Your task to perform on an android device: change the clock style Image 0: 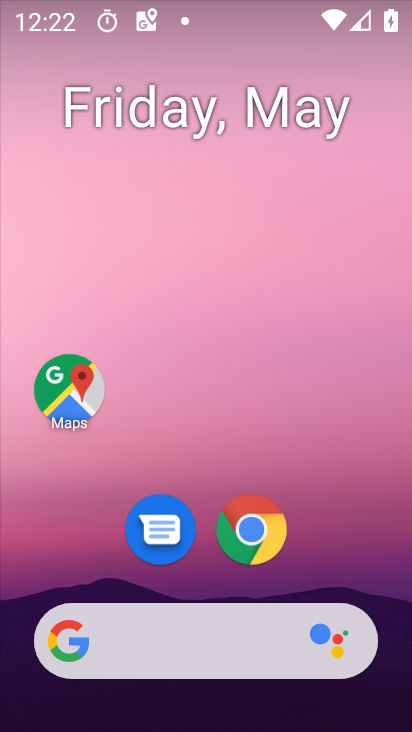
Step 0: drag from (260, 387) to (296, 127)
Your task to perform on an android device: change the clock style Image 1: 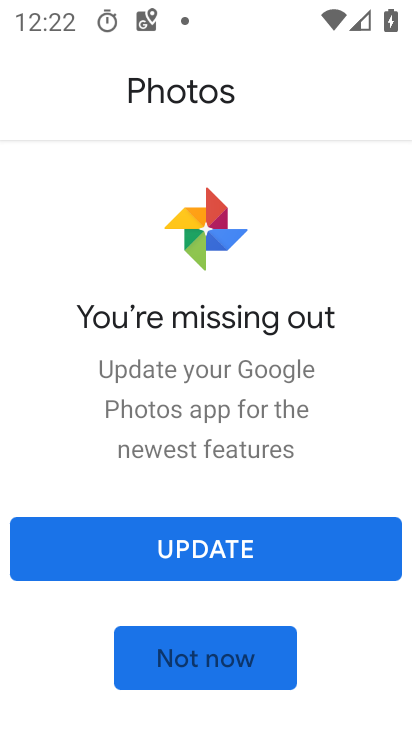
Step 1: press home button
Your task to perform on an android device: change the clock style Image 2: 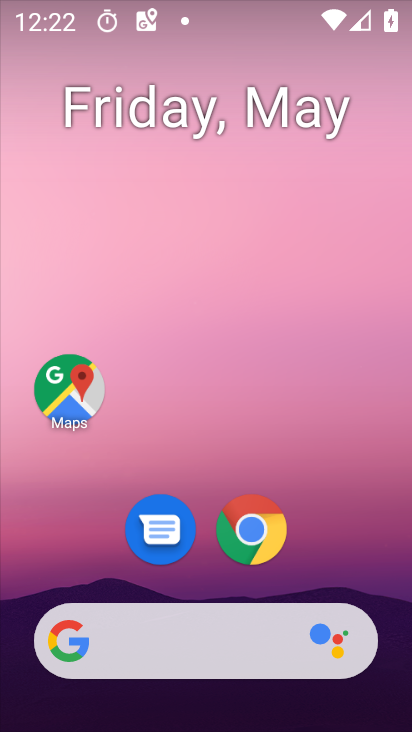
Step 2: drag from (220, 638) to (325, 128)
Your task to perform on an android device: change the clock style Image 3: 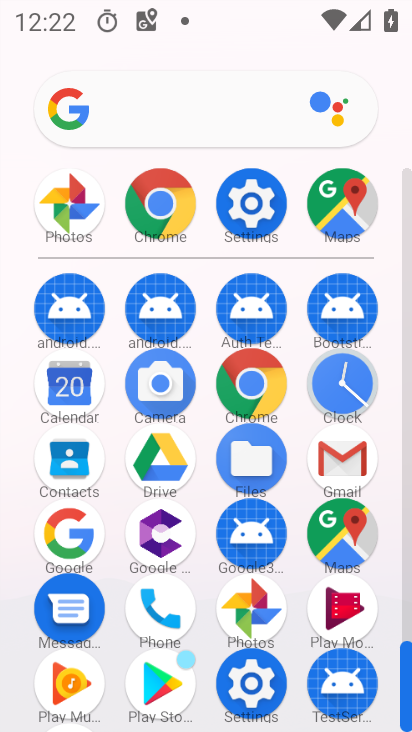
Step 3: click (348, 405)
Your task to perform on an android device: change the clock style Image 4: 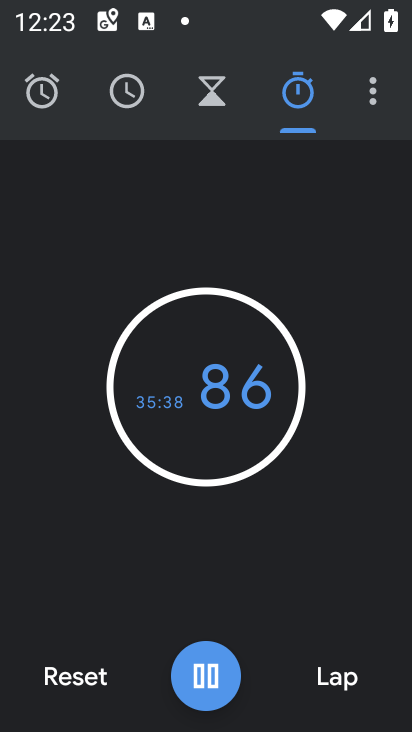
Step 4: click (383, 97)
Your task to perform on an android device: change the clock style Image 5: 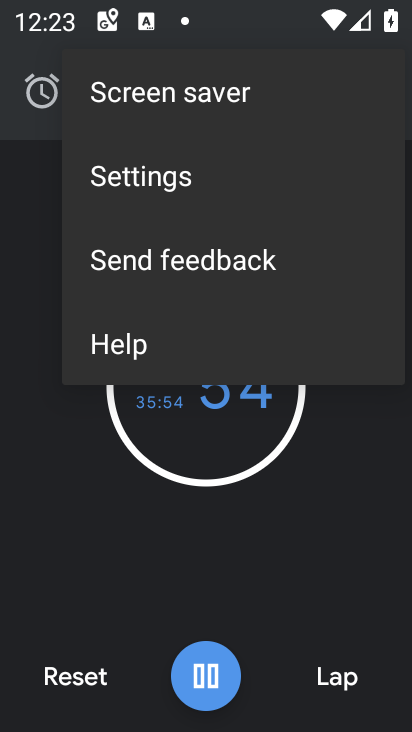
Step 5: click (199, 176)
Your task to perform on an android device: change the clock style Image 6: 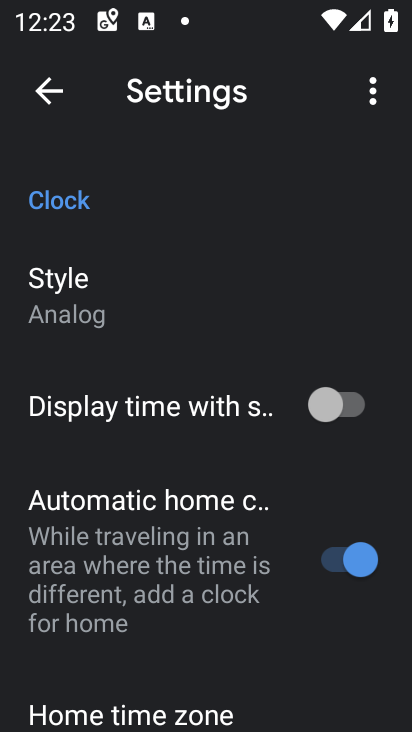
Step 6: click (108, 309)
Your task to perform on an android device: change the clock style Image 7: 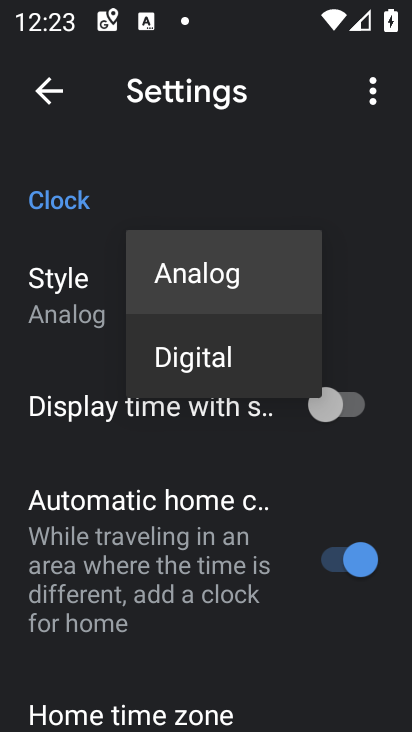
Step 7: click (210, 344)
Your task to perform on an android device: change the clock style Image 8: 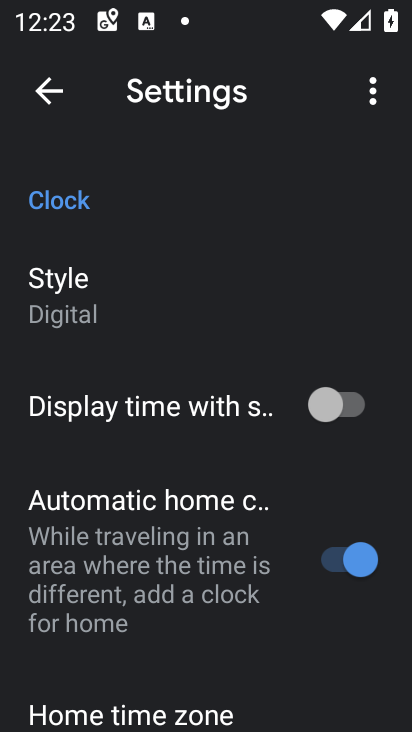
Step 8: task complete